Your task to perform on an android device: Go to Google maps Image 0: 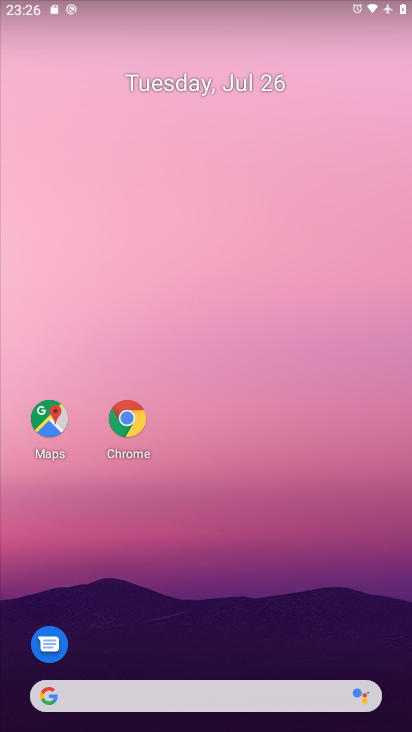
Step 0: drag from (248, 637) to (255, 161)
Your task to perform on an android device: Go to Google maps Image 1: 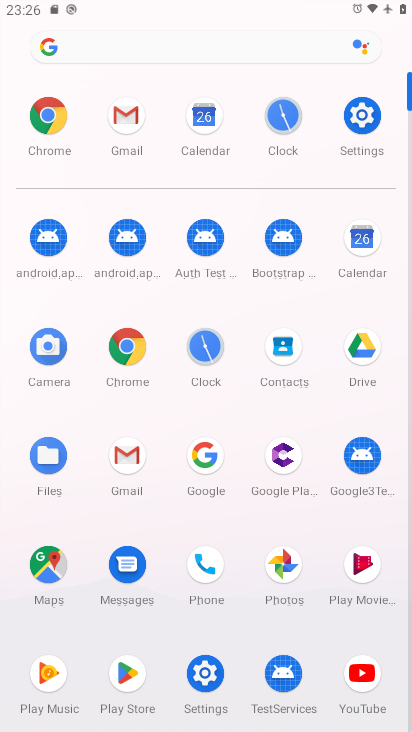
Step 1: click (41, 572)
Your task to perform on an android device: Go to Google maps Image 2: 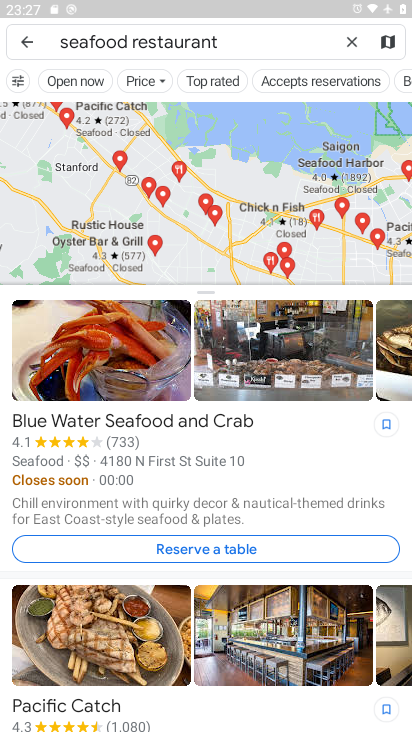
Step 2: task complete